Your task to perform on an android device: Open calendar and show me the third week of next month Image 0: 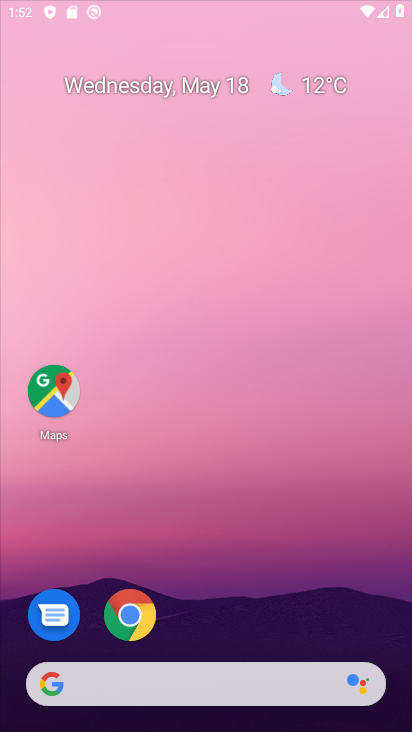
Step 0: drag from (327, 606) to (291, 50)
Your task to perform on an android device: Open calendar and show me the third week of next month Image 1: 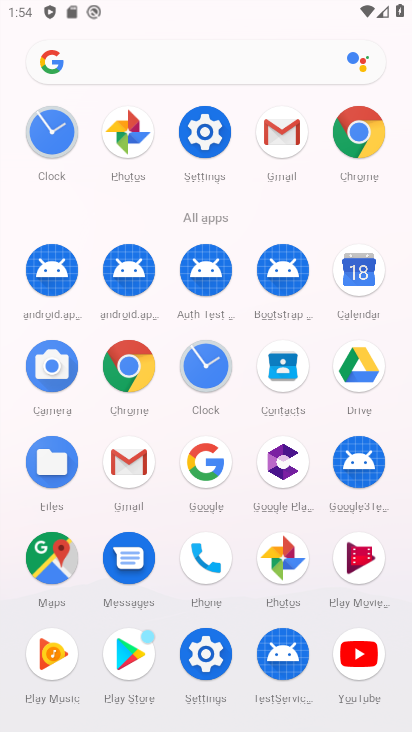
Step 1: click (353, 272)
Your task to perform on an android device: Open calendar and show me the third week of next month Image 2: 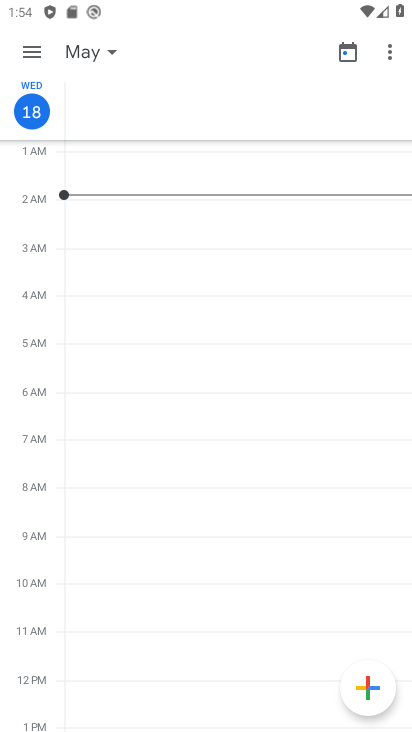
Step 2: click (89, 48)
Your task to perform on an android device: Open calendar and show me the third week of next month Image 3: 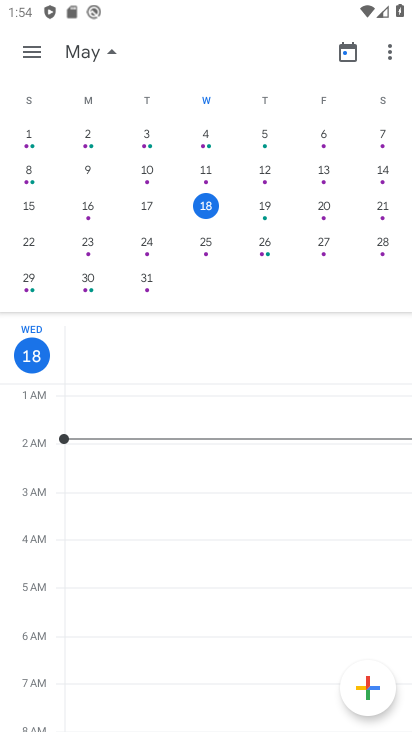
Step 3: drag from (350, 213) to (29, 133)
Your task to perform on an android device: Open calendar and show me the third week of next month Image 4: 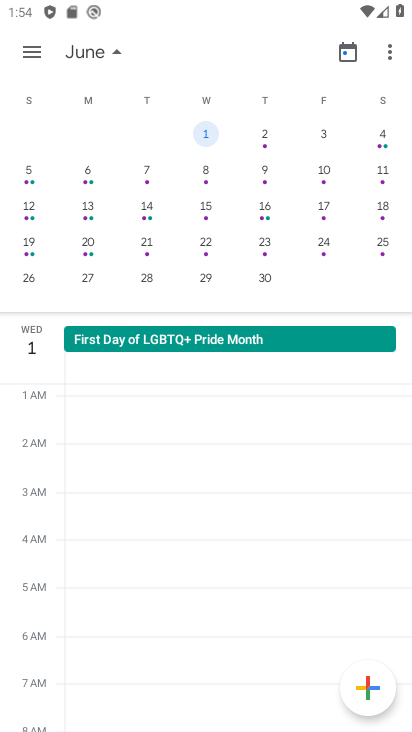
Step 4: click (96, 247)
Your task to perform on an android device: Open calendar and show me the third week of next month Image 5: 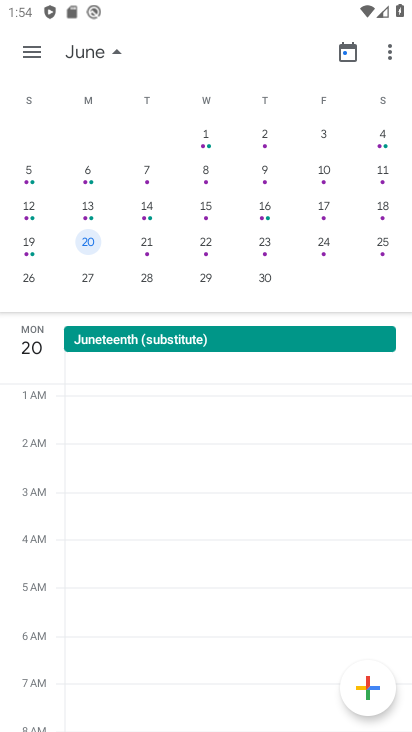
Step 5: task complete